Your task to perform on an android device: Clear the shopping cart on target.com. Add "acer predator" to the cart on target.com, then select checkout. Image 0: 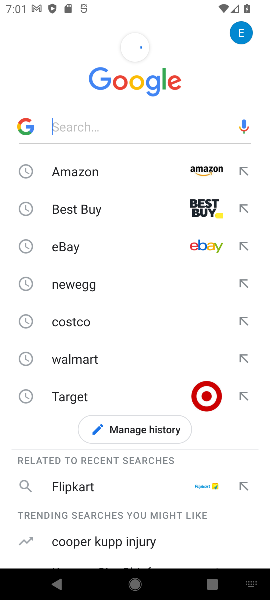
Step 0: press home button
Your task to perform on an android device: Clear the shopping cart on target.com. Add "acer predator" to the cart on target.com, then select checkout. Image 1: 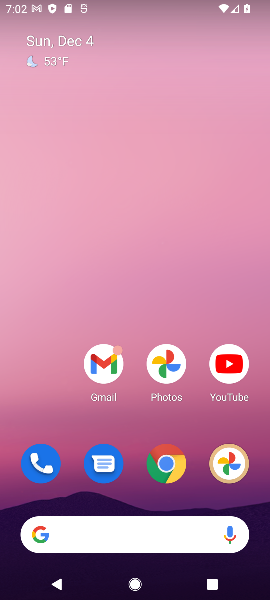
Step 1: click (160, 531)
Your task to perform on an android device: Clear the shopping cart on target.com. Add "acer predator" to the cart on target.com, then select checkout. Image 2: 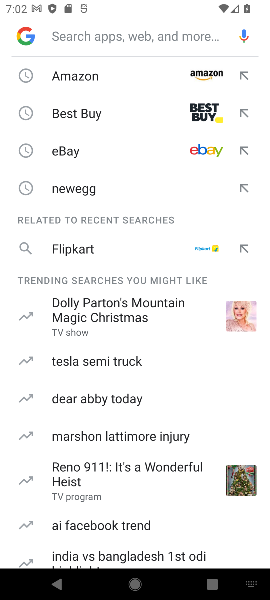
Step 2: type "target"
Your task to perform on an android device: Clear the shopping cart on target.com. Add "acer predator" to the cart on target.com, then select checkout. Image 3: 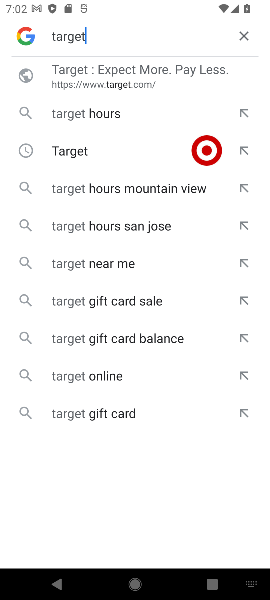
Step 3: click (102, 82)
Your task to perform on an android device: Clear the shopping cart on target.com. Add "acer predator" to the cart on target.com, then select checkout. Image 4: 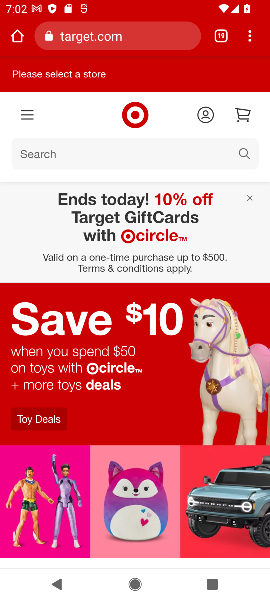
Step 4: click (116, 143)
Your task to perform on an android device: Clear the shopping cart on target.com. Add "acer predator" to the cart on target.com, then select checkout. Image 5: 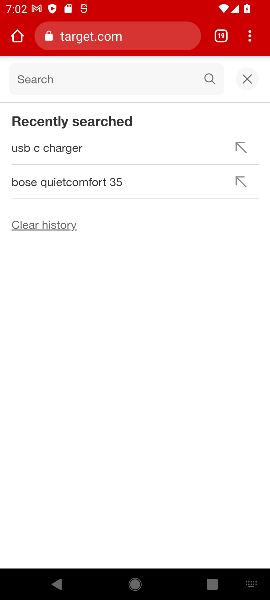
Step 5: type "acer predator"
Your task to perform on an android device: Clear the shopping cart on target.com. Add "acer predator" to the cart on target.com, then select checkout. Image 6: 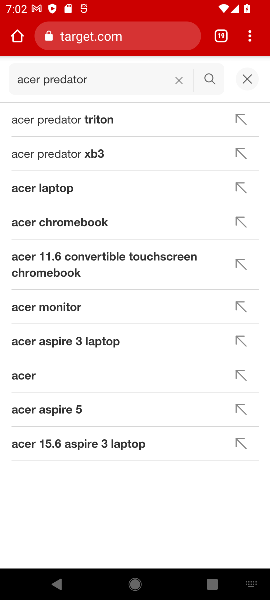
Step 6: click (98, 117)
Your task to perform on an android device: Clear the shopping cart on target.com. Add "acer predator" to the cart on target.com, then select checkout. Image 7: 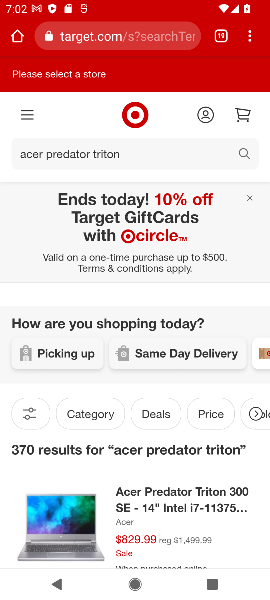
Step 7: click (160, 511)
Your task to perform on an android device: Clear the shopping cart on target.com. Add "acer predator" to the cart on target.com, then select checkout. Image 8: 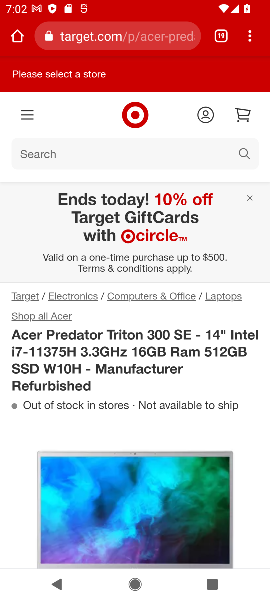
Step 8: drag from (257, 422) to (203, 205)
Your task to perform on an android device: Clear the shopping cart on target.com. Add "acer predator" to the cart on target.com, then select checkout. Image 9: 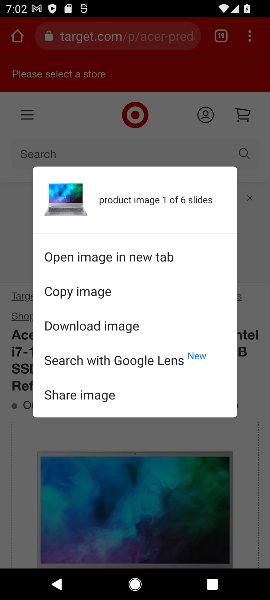
Step 9: click (253, 267)
Your task to perform on an android device: Clear the shopping cart on target.com. Add "acer predator" to the cart on target.com, then select checkout. Image 10: 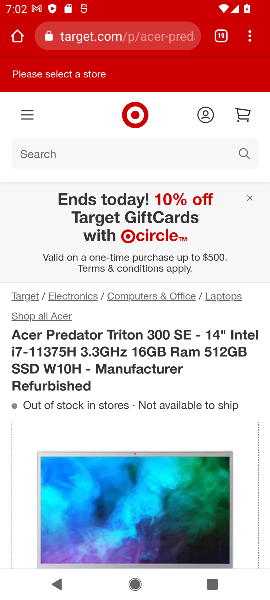
Step 10: drag from (207, 434) to (199, 150)
Your task to perform on an android device: Clear the shopping cart on target.com. Add "acer predator" to the cart on target.com, then select checkout. Image 11: 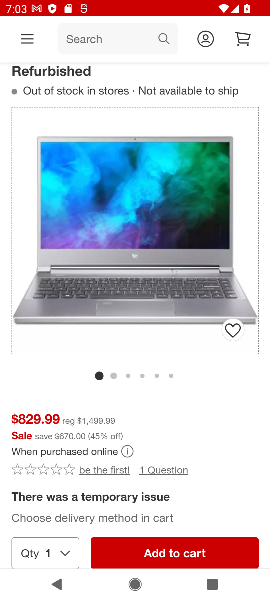
Step 11: click (185, 552)
Your task to perform on an android device: Clear the shopping cart on target.com. Add "acer predator" to the cart on target.com, then select checkout. Image 12: 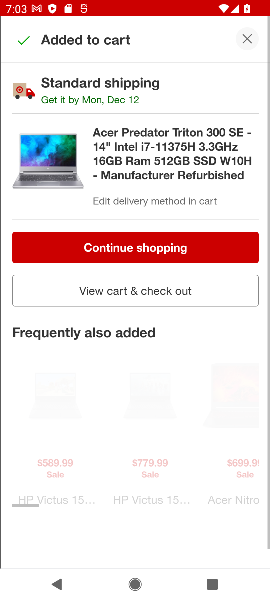
Step 12: task complete